Your task to perform on an android device: Open privacy settings Image 0: 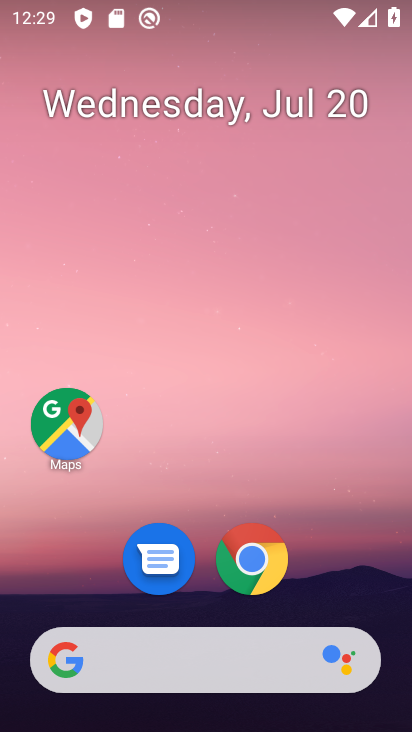
Step 0: drag from (345, 572) to (327, 96)
Your task to perform on an android device: Open privacy settings Image 1: 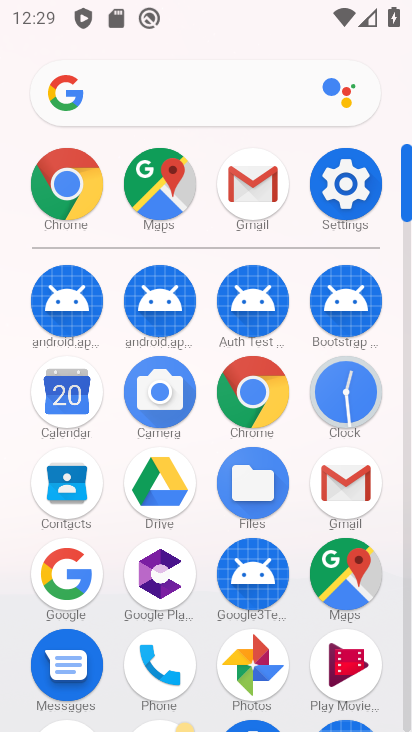
Step 1: click (363, 193)
Your task to perform on an android device: Open privacy settings Image 2: 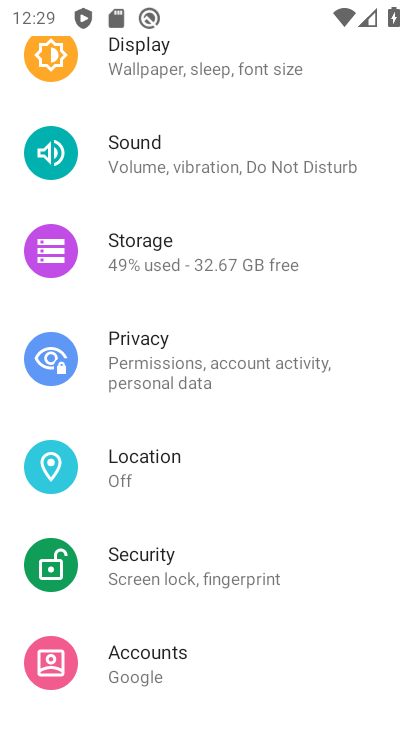
Step 2: drag from (359, 210) to (356, 317)
Your task to perform on an android device: Open privacy settings Image 3: 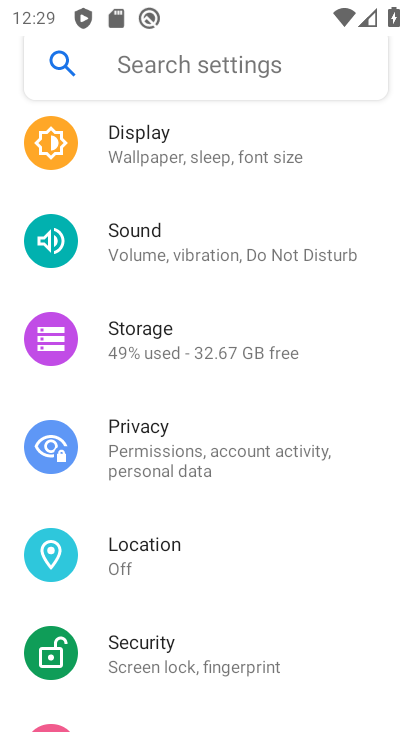
Step 3: drag from (361, 185) to (363, 339)
Your task to perform on an android device: Open privacy settings Image 4: 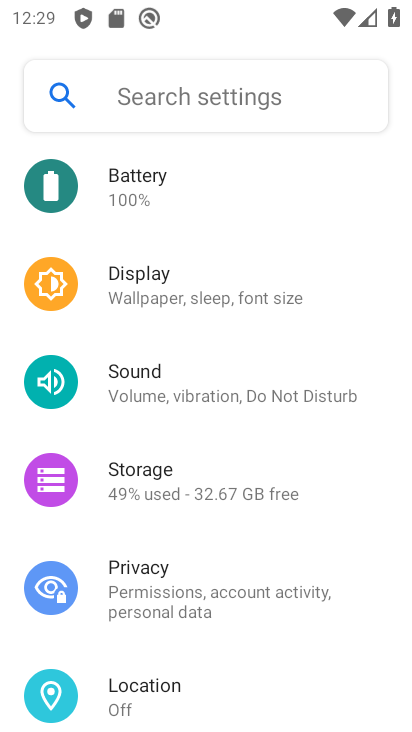
Step 4: drag from (350, 187) to (353, 308)
Your task to perform on an android device: Open privacy settings Image 5: 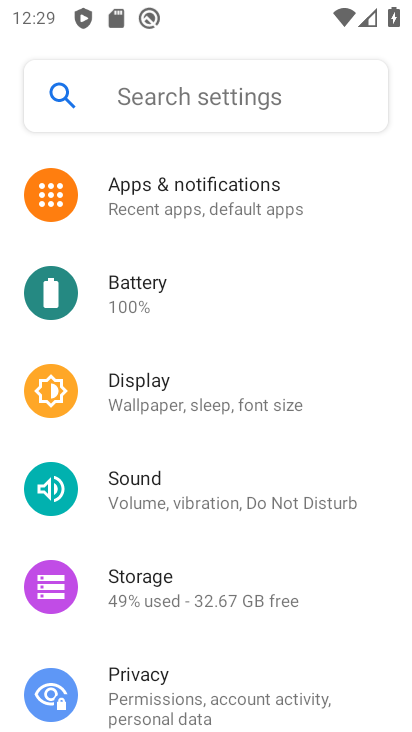
Step 5: drag from (363, 190) to (365, 307)
Your task to perform on an android device: Open privacy settings Image 6: 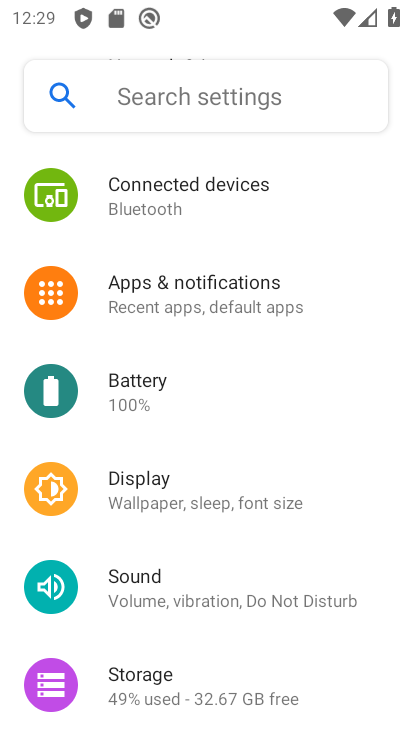
Step 6: drag from (363, 182) to (366, 350)
Your task to perform on an android device: Open privacy settings Image 7: 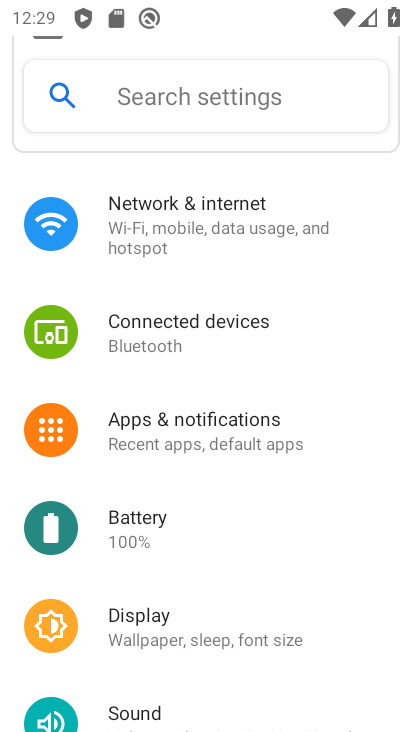
Step 7: drag from (365, 369) to (365, 265)
Your task to perform on an android device: Open privacy settings Image 8: 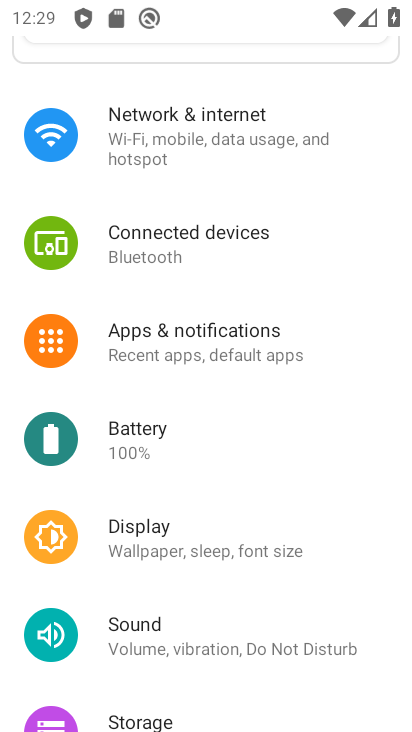
Step 8: drag from (360, 410) to (362, 287)
Your task to perform on an android device: Open privacy settings Image 9: 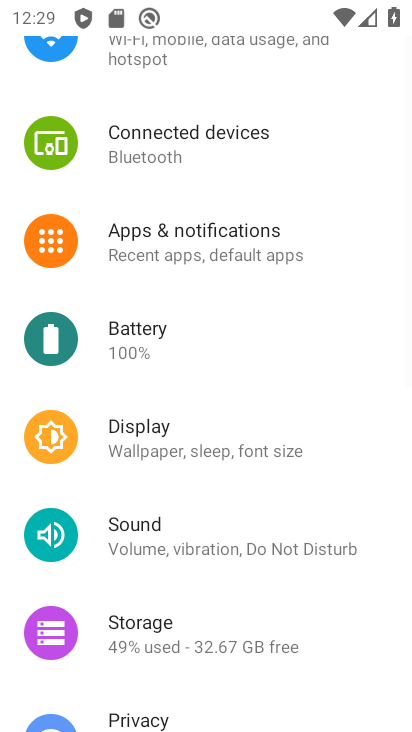
Step 9: drag from (352, 418) to (353, 309)
Your task to perform on an android device: Open privacy settings Image 10: 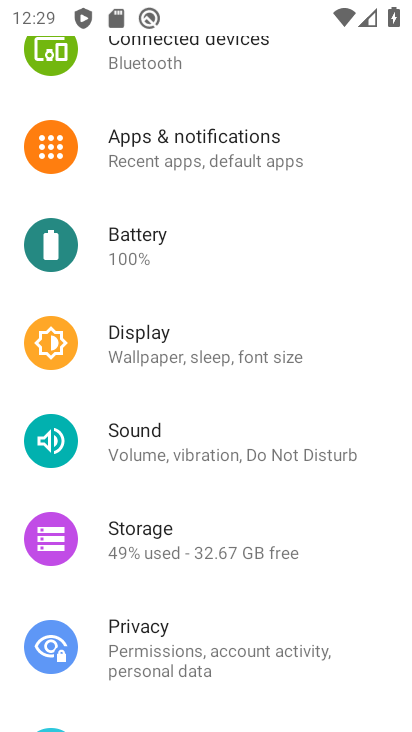
Step 10: drag from (348, 425) to (347, 295)
Your task to perform on an android device: Open privacy settings Image 11: 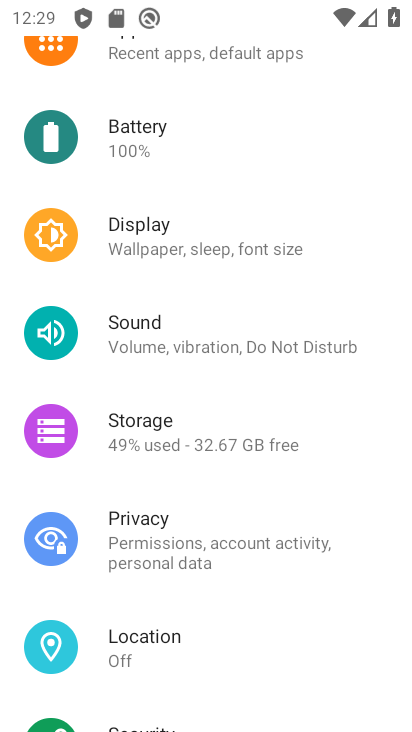
Step 11: drag from (363, 469) to (371, 349)
Your task to perform on an android device: Open privacy settings Image 12: 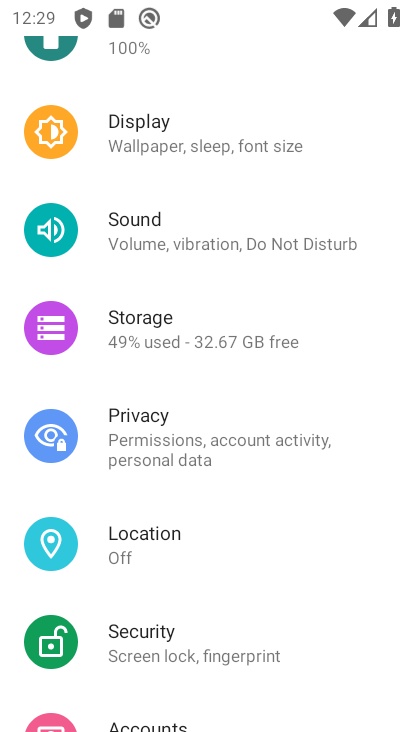
Step 12: drag from (340, 538) to (341, 438)
Your task to perform on an android device: Open privacy settings Image 13: 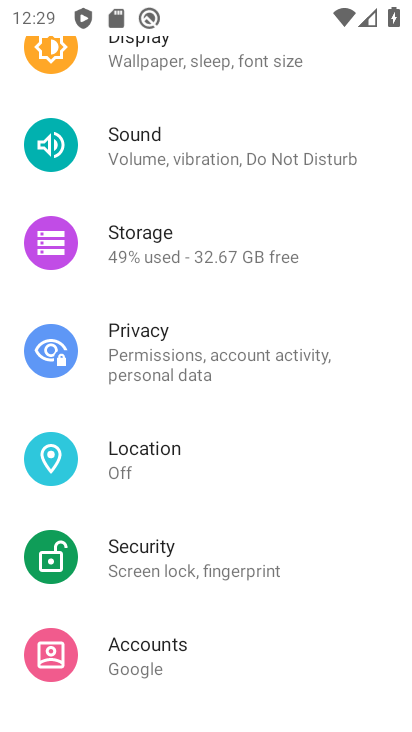
Step 13: click (274, 380)
Your task to perform on an android device: Open privacy settings Image 14: 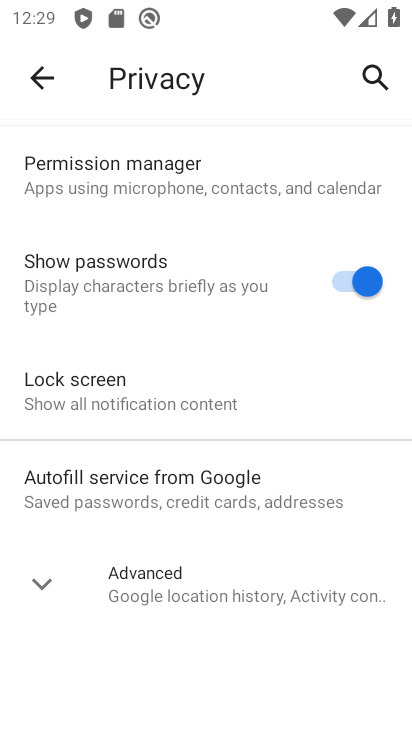
Step 14: task complete